Your task to perform on an android device: toggle show notifications on the lock screen Image 0: 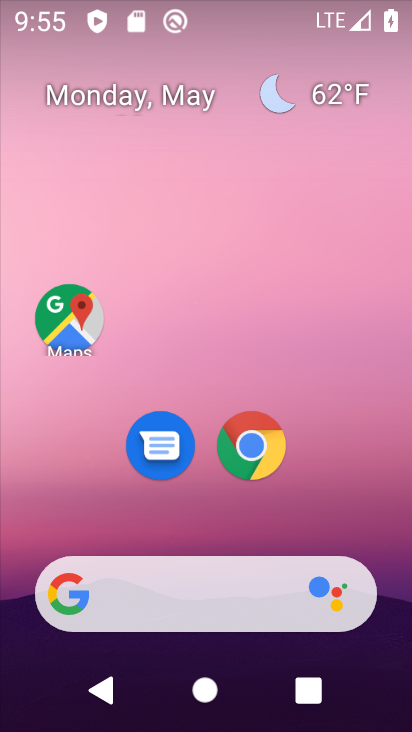
Step 0: drag from (405, 633) to (402, 567)
Your task to perform on an android device: toggle show notifications on the lock screen Image 1: 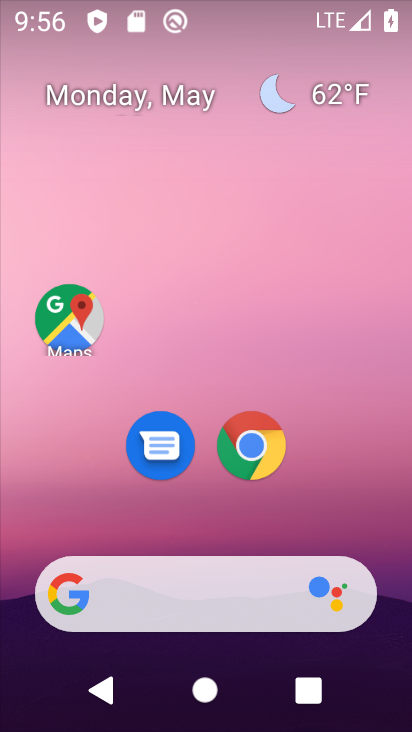
Step 1: drag from (403, 594) to (265, 7)
Your task to perform on an android device: toggle show notifications on the lock screen Image 2: 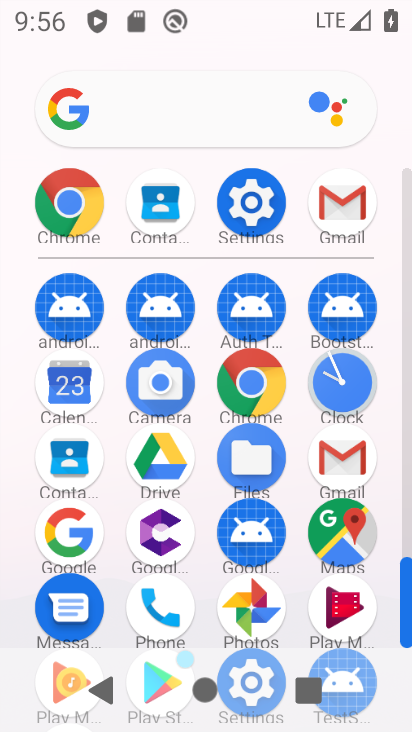
Step 2: click (252, 217)
Your task to perform on an android device: toggle show notifications on the lock screen Image 3: 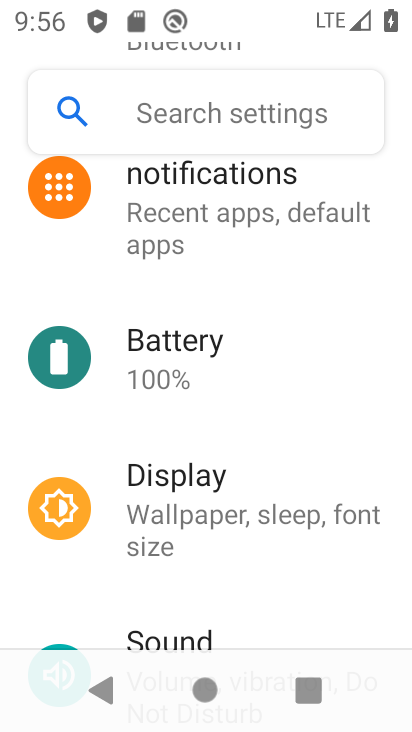
Step 3: click (202, 201)
Your task to perform on an android device: toggle show notifications on the lock screen Image 4: 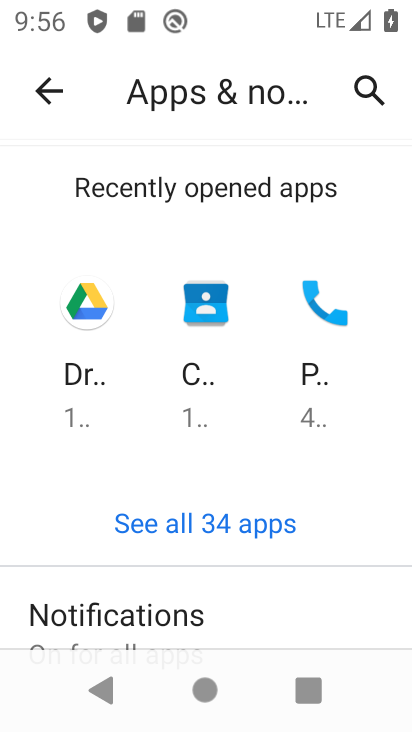
Step 4: click (245, 600)
Your task to perform on an android device: toggle show notifications on the lock screen Image 5: 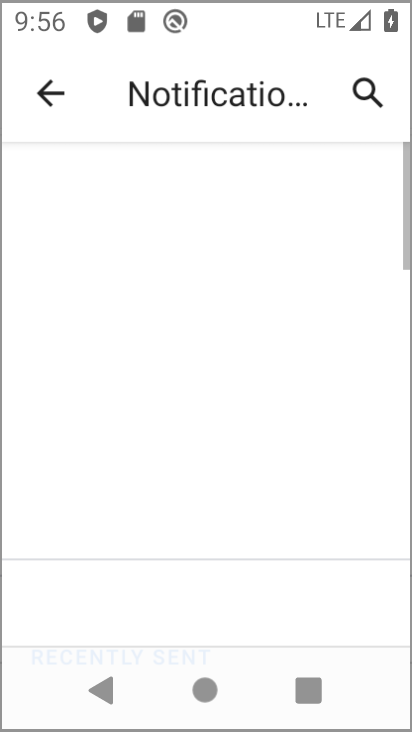
Step 5: drag from (246, 600) to (248, 63)
Your task to perform on an android device: toggle show notifications on the lock screen Image 6: 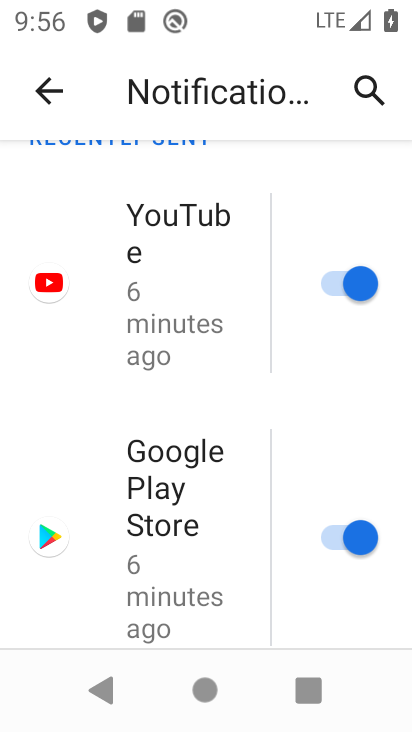
Step 6: drag from (244, 589) to (216, 257)
Your task to perform on an android device: toggle show notifications on the lock screen Image 7: 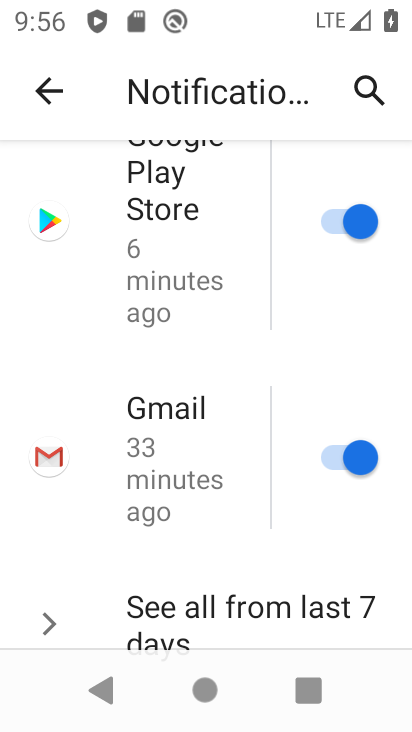
Step 7: drag from (227, 552) to (232, 37)
Your task to perform on an android device: toggle show notifications on the lock screen Image 8: 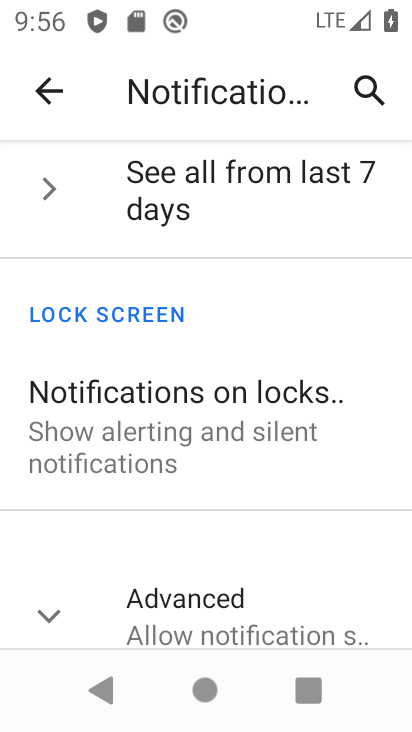
Step 8: click (235, 400)
Your task to perform on an android device: toggle show notifications on the lock screen Image 9: 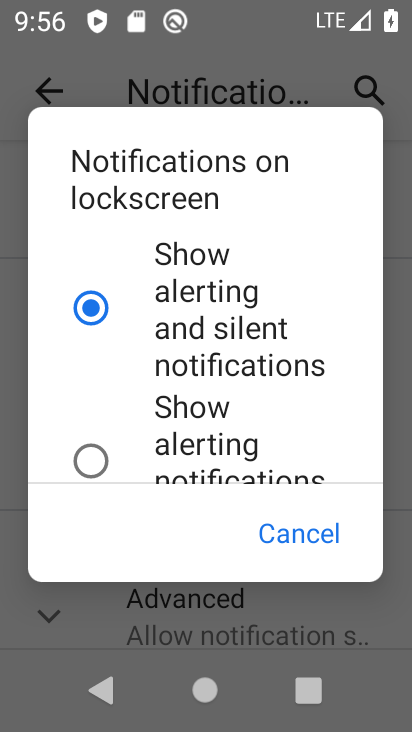
Step 9: drag from (180, 428) to (183, 267)
Your task to perform on an android device: toggle show notifications on the lock screen Image 10: 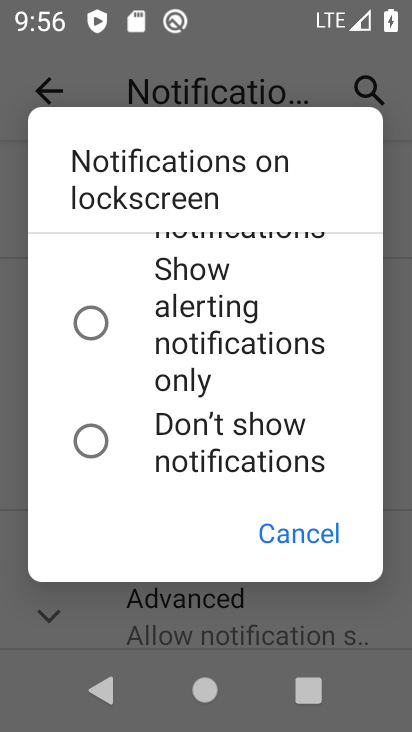
Step 10: click (109, 435)
Your task to perform on an android device: toggle show notifications on the lock screen Image 11: 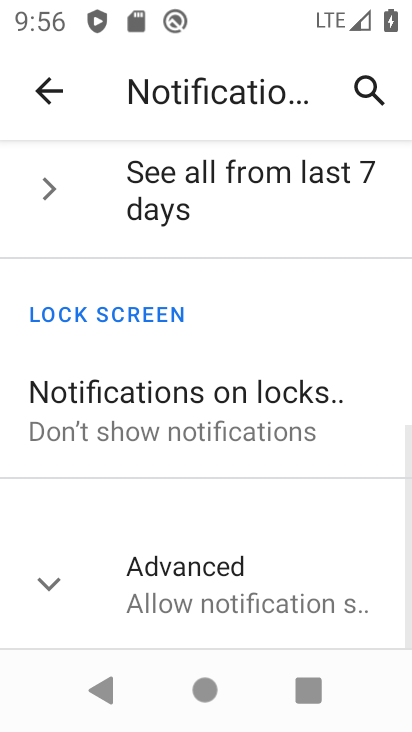
Step 11: task complete